Your task to perform on an android device: Go to Google Image 0: 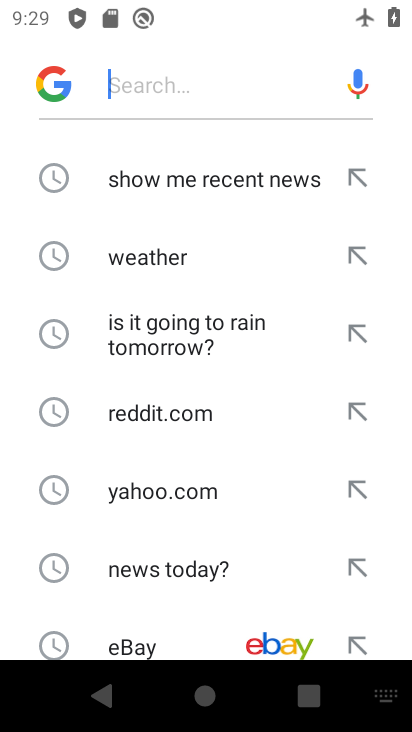
Step 0: press home button
Your task to perform on an android device: Go to Google Image 1: 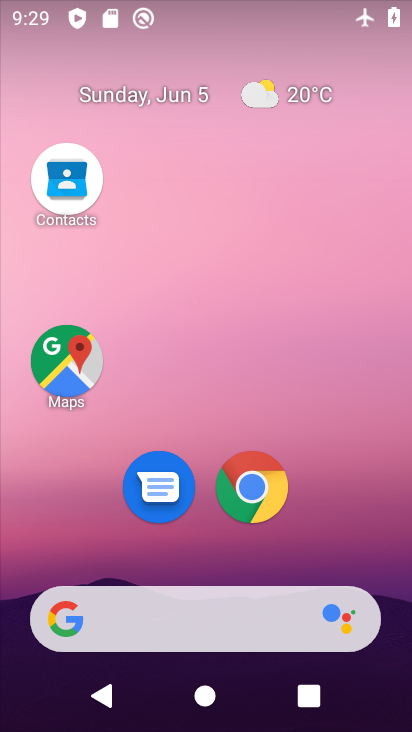
Step 1: drag from (248, 536) to (390, 23)
Your task to perform on an android device: Go to Google Image 2: 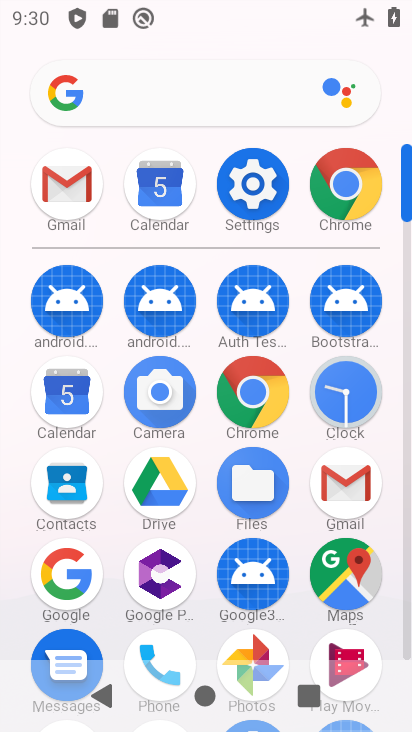
Step 2: click (57, 578)
Your task to perform on an android device: Go to Google Image 3: 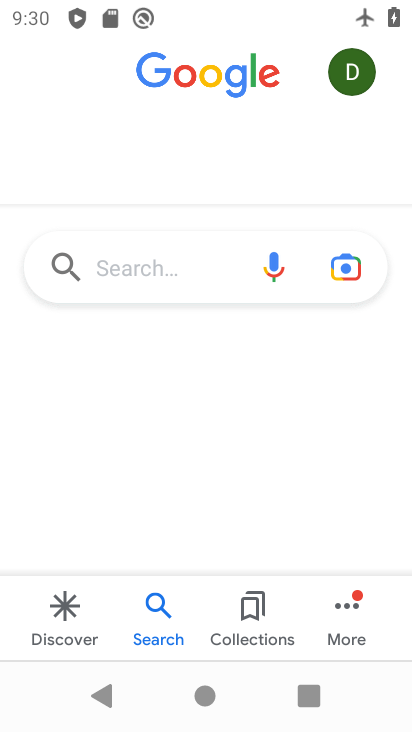
Step 3: task complete